Your task to perform on an android device: open the mobile data screen to see how much data has been used Image 0: 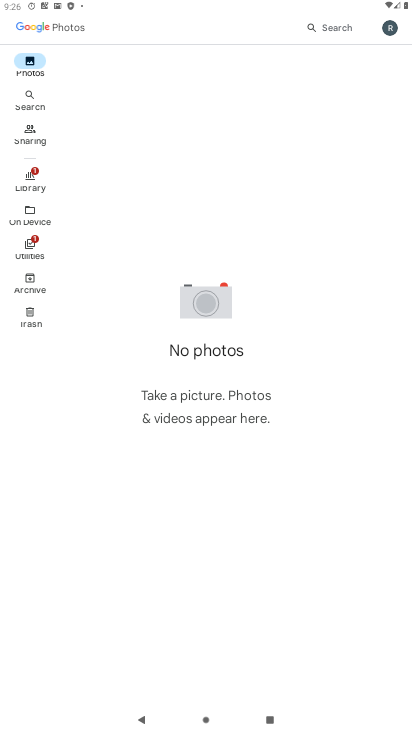
Step 0: drag from (258, 484) to (248, 248)
Your task to perform on an android device: open the mobile data screen to see how much data has been used Image 1: 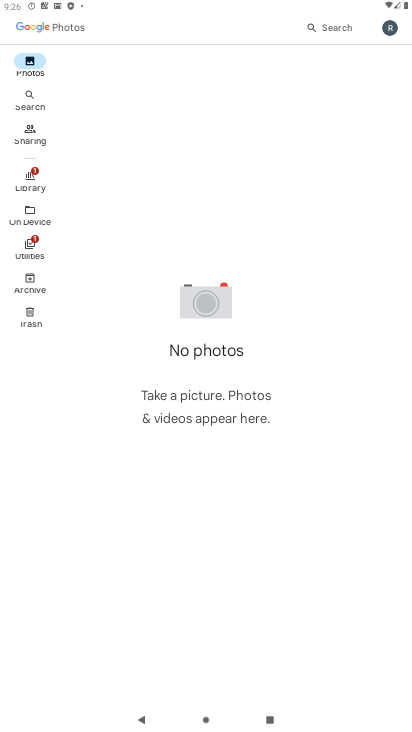
Step 1: drag from (187, 521) to (225, 162)
Your task to perform on an android device: open the mobile data screen to see how much data has been used Image 2: 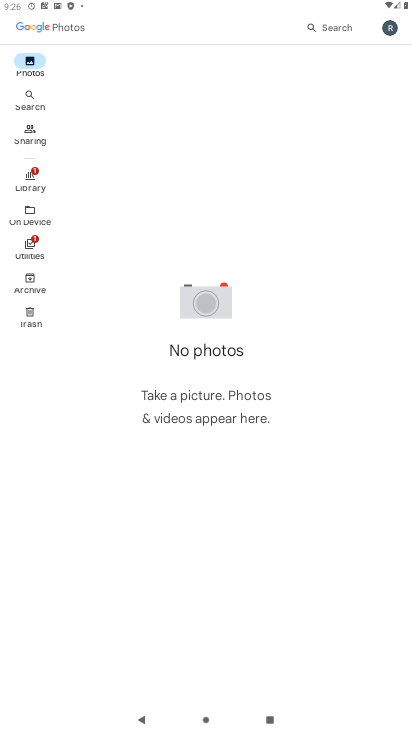
Step 2: drag from (226, 487) to (242, 338)
Your task to perform on an android device: open the mobile data screen to see how much data has been used Image 3: 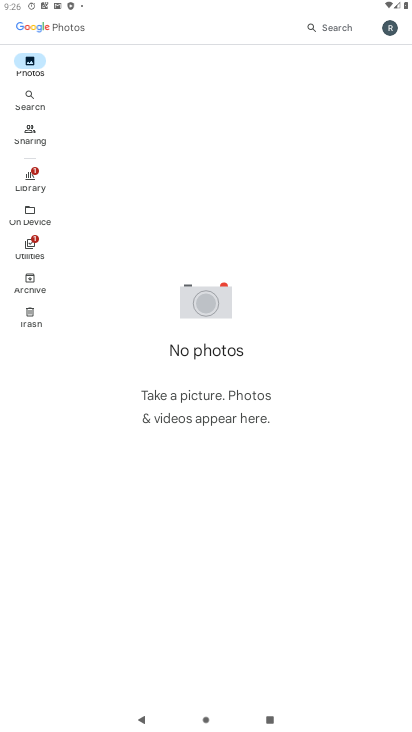
Step 3: drag from (153, 505) to (211, 266)
Your task to perform on an android device: open the mobile data screen to see how much data has been used Image 4: 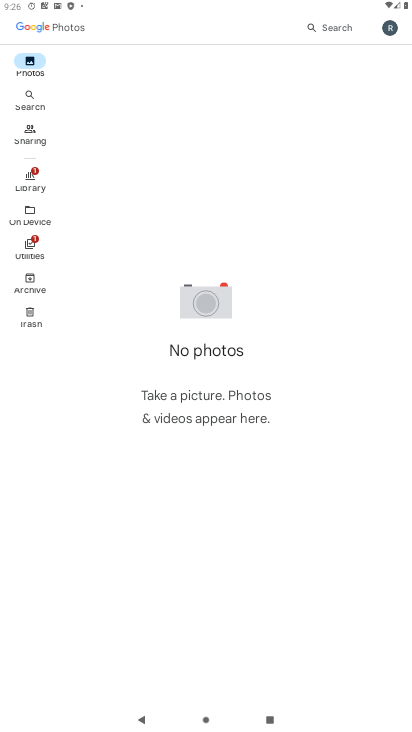
Step 4: drag from (236, 585) to (258, 285)
Your task to perform on an android device: open the mobile data screen to see how much data has been used Image 5: 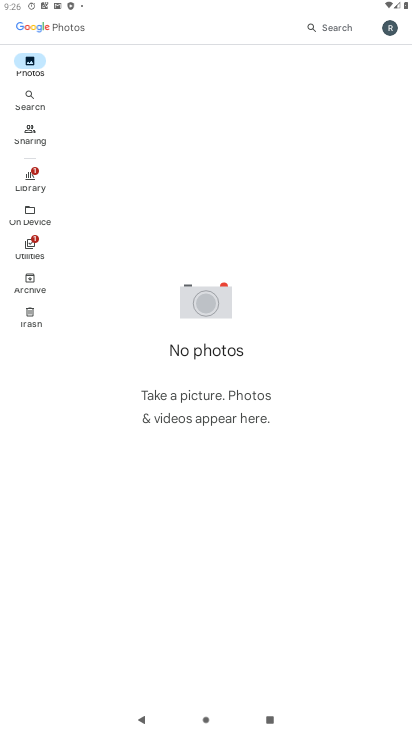
Step 5: drag from (267, 185) to (214, 565)
Your task to perform on an android device: open the mobile data screen to see how much data has been used Image 6: 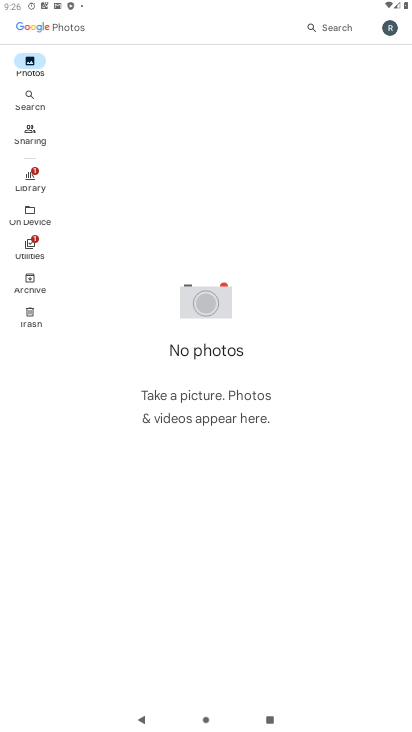
Step 6: press home button
Your task to perform on an android device: open the mobile data screen to see how much data has been used Image 7: 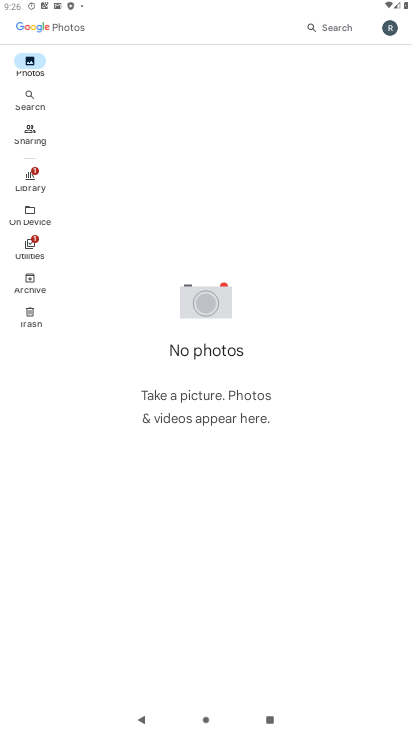
Step 7: press home button
Your task to perform on an android device: open the mobile data screen to see how much data has been used Image 8: 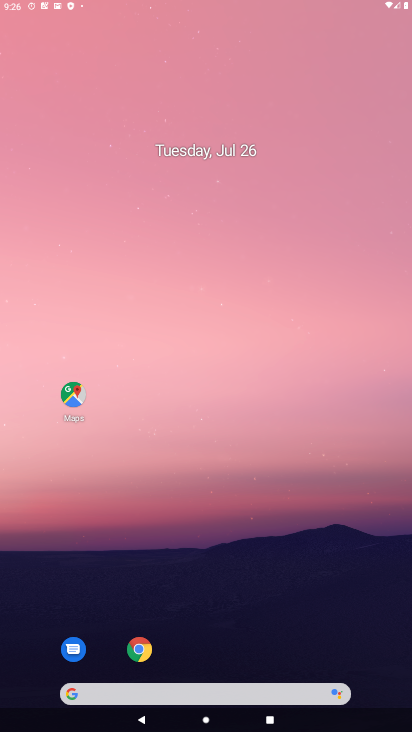
Step 8: press home button
Your task to perform on an android device: open the mobile data screen to see how much data has been used Image 9: 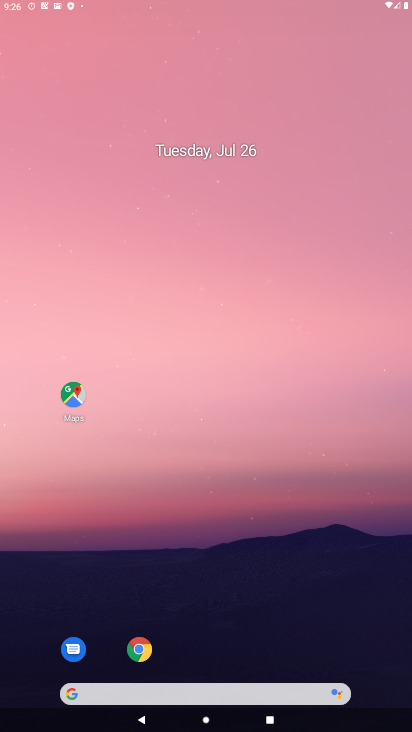
Step 9: click (215, 207)
Your task to perform on an android device: open the mobile data screen to see how much data has been used Image 10: 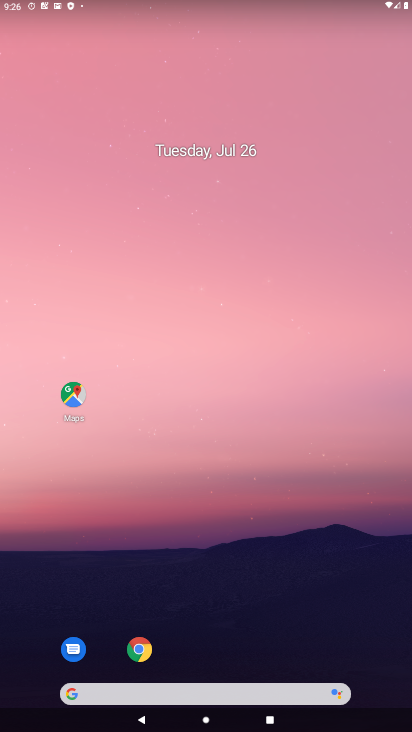
Step 10: drag from (192, 640) to (280, 107)
Your task to perform on an android device: open the mobile data screen to see how much data has been used Image 11: 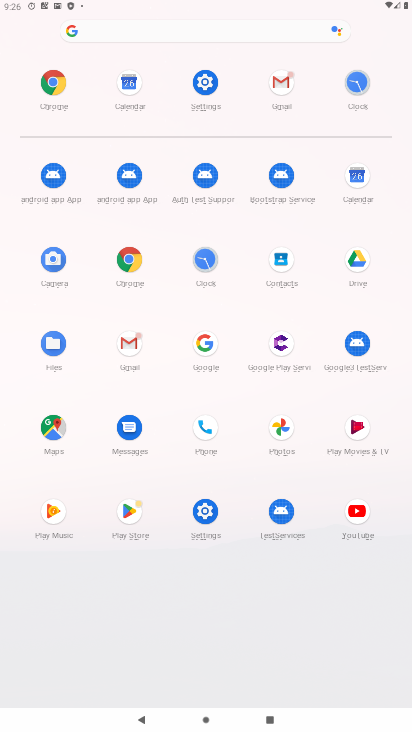
Step 11: click (207, 509)
Your task to perform on an android device: open the mobile data screen to see how much data has been used Image 12: 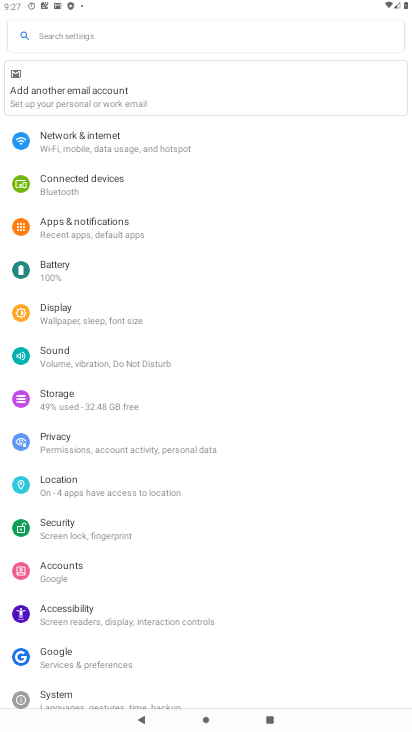
Step 12: click (131, 146)
Your task to perform on an android device: open the mobile data screen to see how much data has been used Image 13: 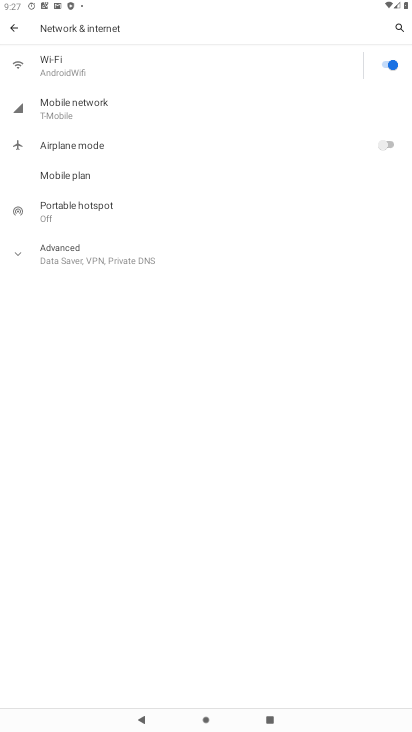
Step 13: click (136, 113)
Your task to perform on an android device: open the mobile data screen to see how much data has been used Image 14: 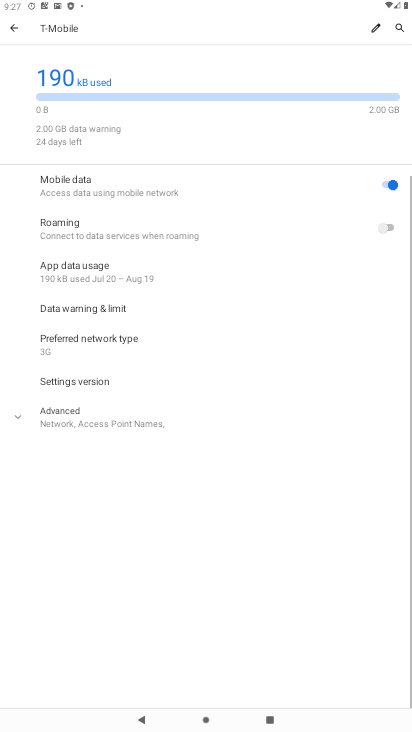
Step 14: task complete